Your task to perform on an android device: Open the map Image 0: 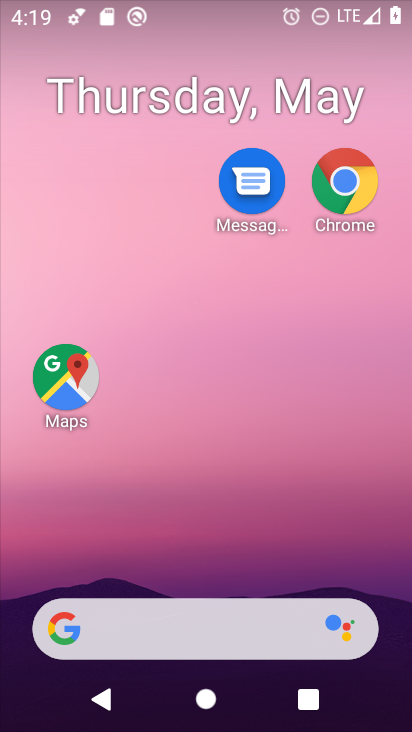
Step 0: drag from (260, 588) to (223, 727)
Your task to perform on an android device: Open the map Image 1: 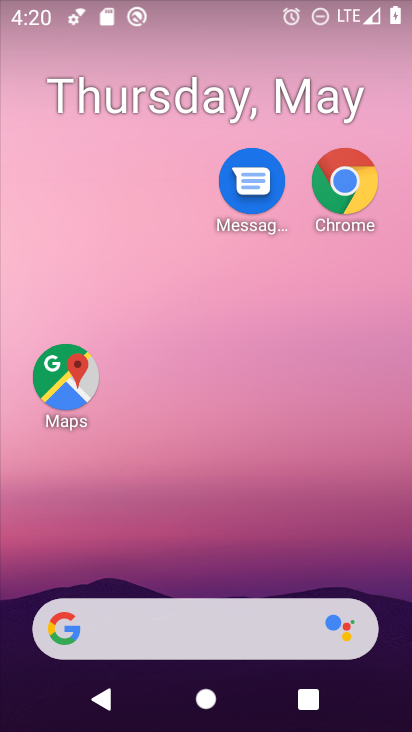
Step 1: drag from (329, 592) to (311, 11)
Your task to perform on an android device: Open the map Image 2: 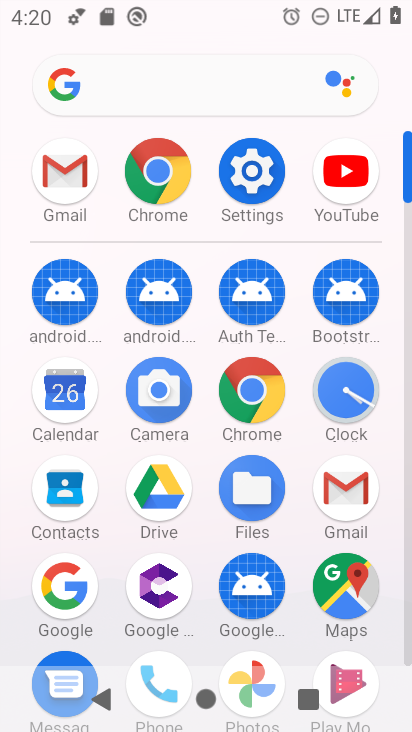
Step 2: click (363, 583)
Your task to perform on an android device: Open the map Image 3: 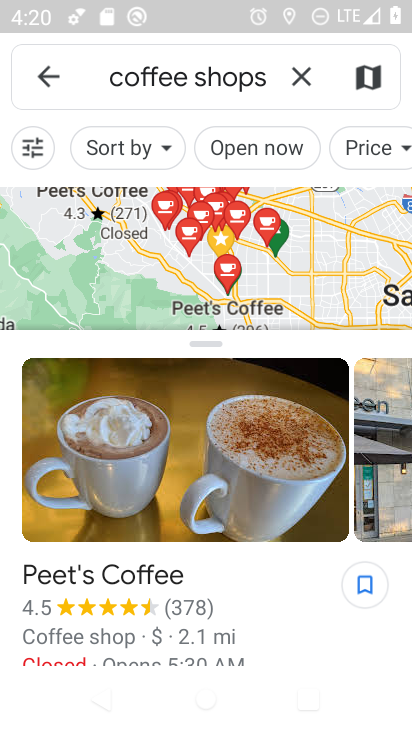
Step 3: task complete